Your task to perform on an android device: When is my next appointment? Image 0: 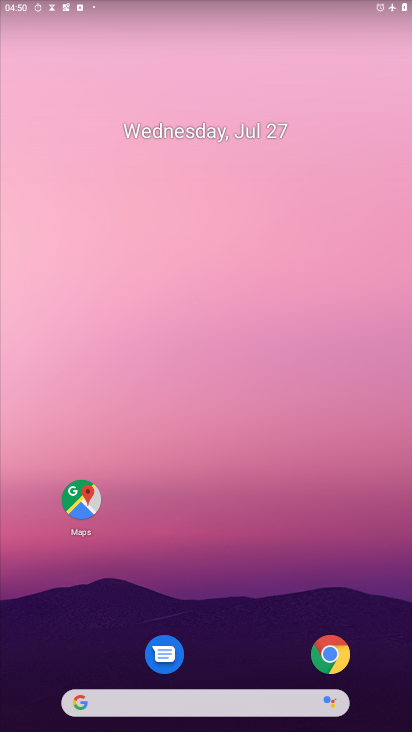
Step 0: drag from (256, 671) to (312, 16)
Your task to perform on an android device: When is my next appointment? Image 1: 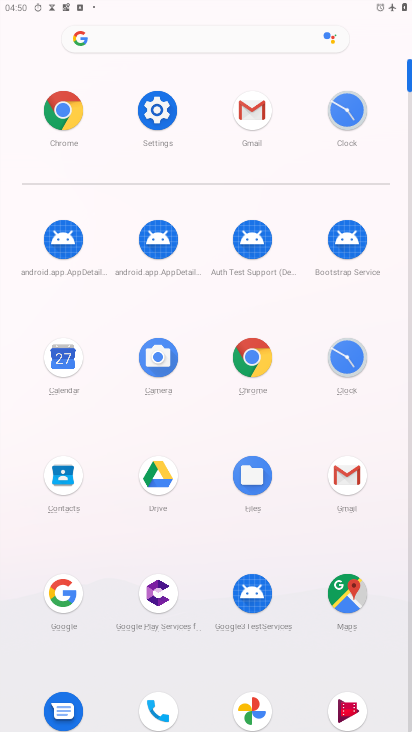
Step 1: click (61, 360)
Your task to perform on an android device: When is my next appointment? Image 2: 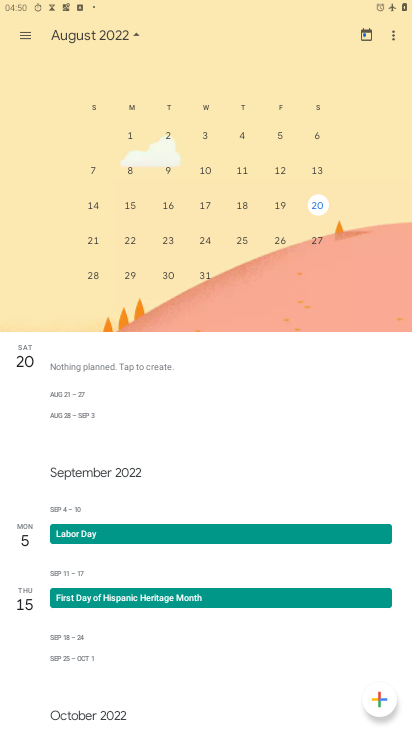
Step 2: click (85, 277)
Your task to perform on an android device: When is my next appointment? Image 3: 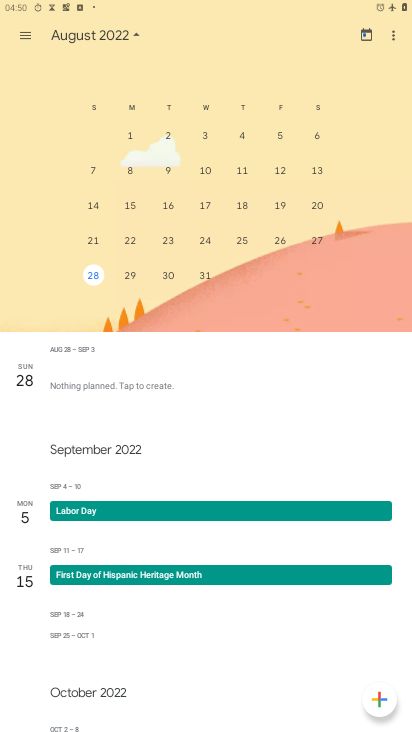
Step 3: task complete